Your task to perform on an android device: Do I have any events today? Image 0: 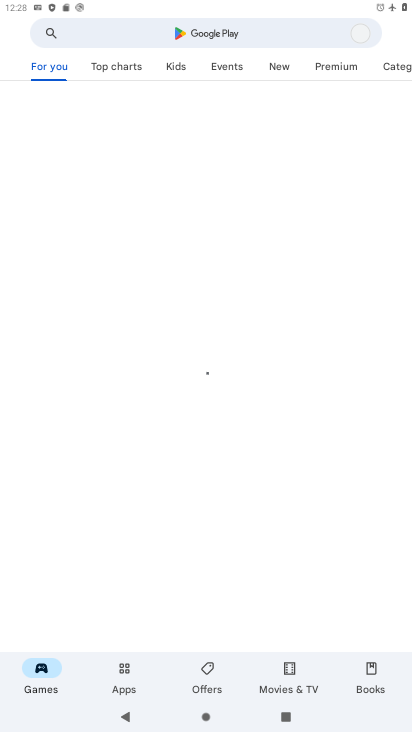
Step 0: press home button
Your task to perform on an android device: Do I have any events today? Image 1: 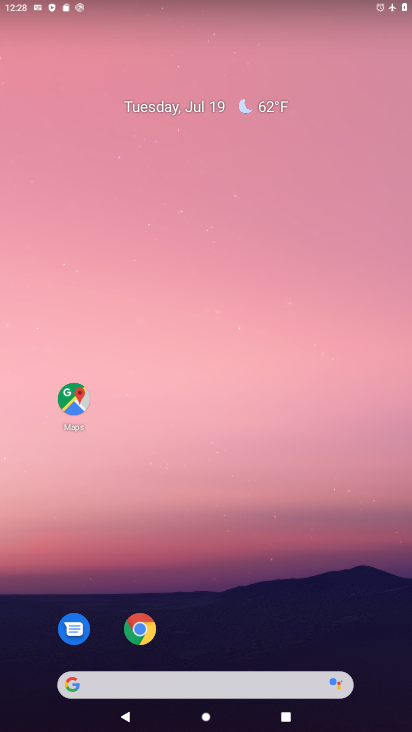
Step 1: drag from (191, 659) to (193, 201)
Your task to perform on an android device: Do I have any events today? Image 2: 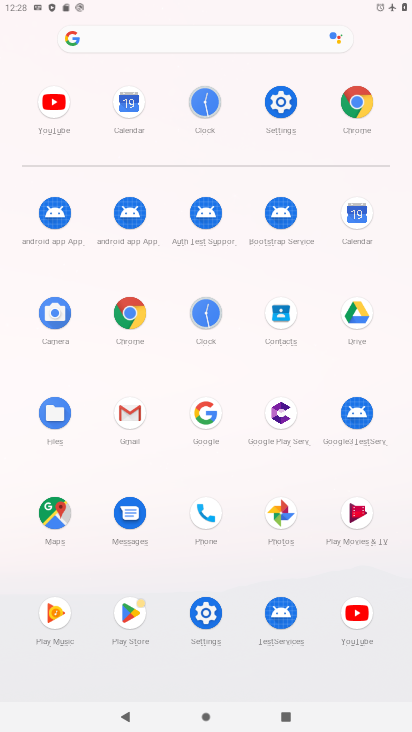
Step 2: click (379, 231)
Your task to perform on an android device: Do I have any events today? Image 3: 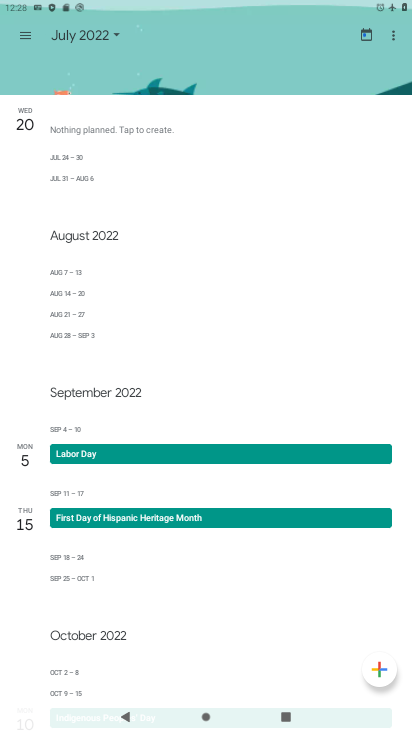
Step 3: click (363, 37)
Your task to perform on an android device: Do I have any events today? Image 4: 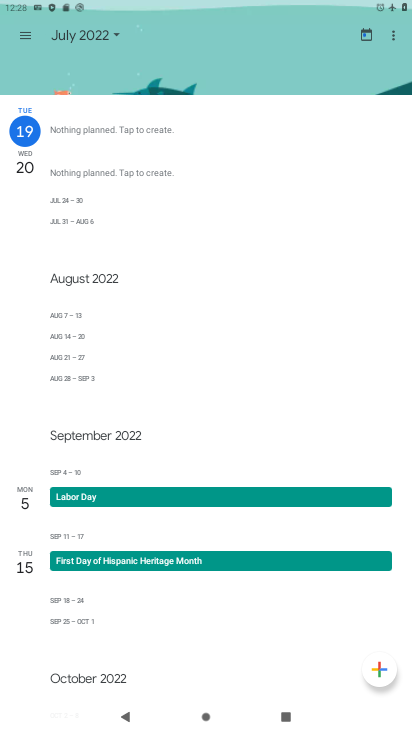
Step 4: click (31, 136)
Your task to perform on an android device: Do I have any events today? Image 5: 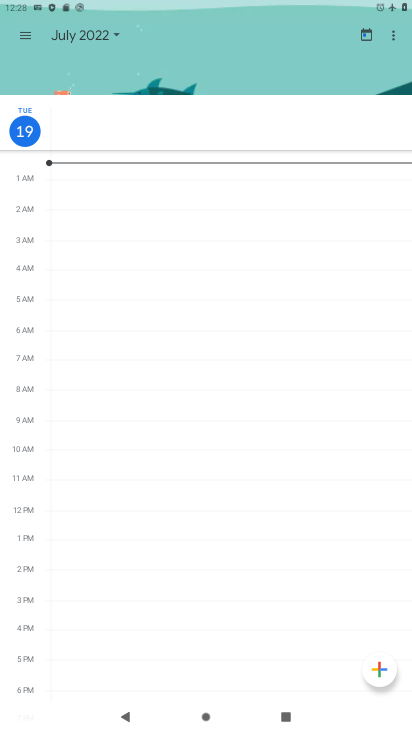
Step 5: task complete